Your task to perform on an android device: Go to privacy settings Image 0: 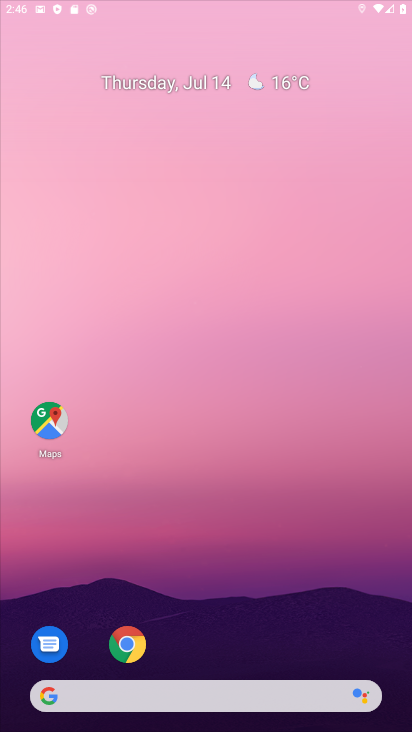
Step 0: click (217, 183)
Your task to perform on an android device: Go to privacy settings Image 1: 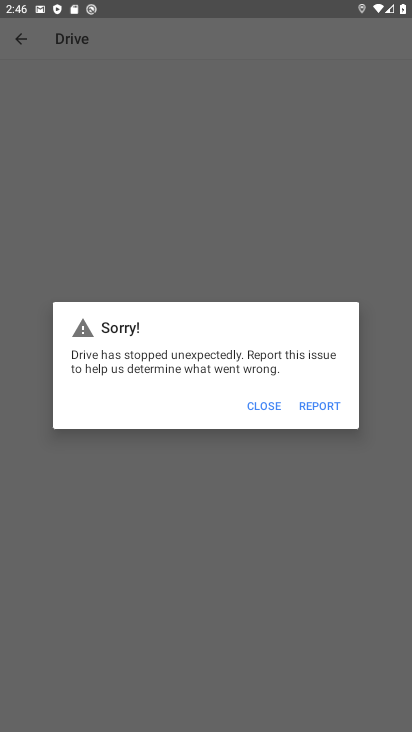
Step 1: press home button
Your task to perform on an android device: Go to privacy settings Image 2: 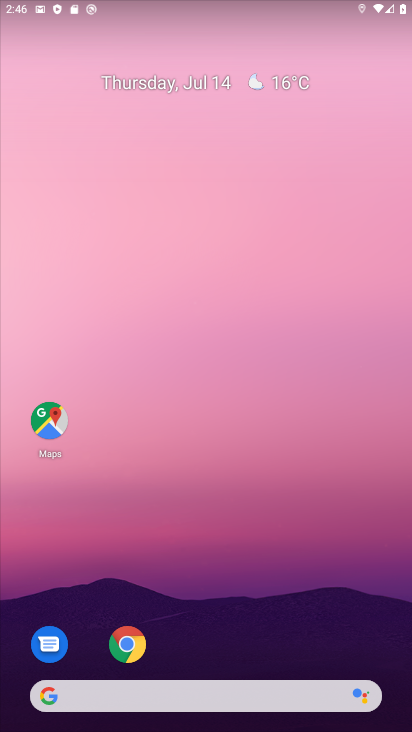
Step 2: drag from (189, 635) to (178, 162)
Your task to perform on an android device: Go to privacy settings Image 3: 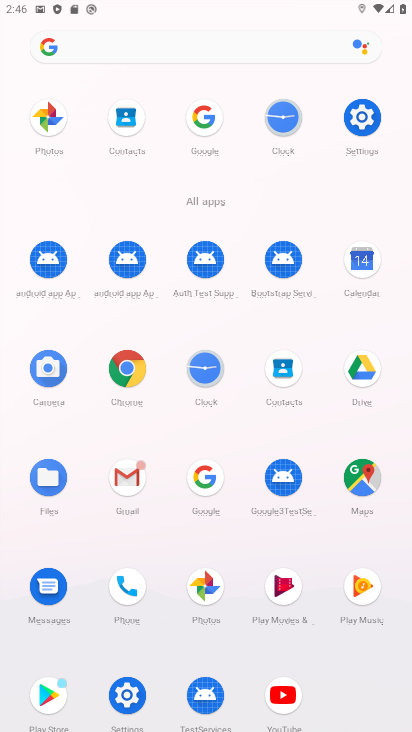
Step 3: click (345, 115)
Your task to perform on an android device: Go to privacy settings Image 4: 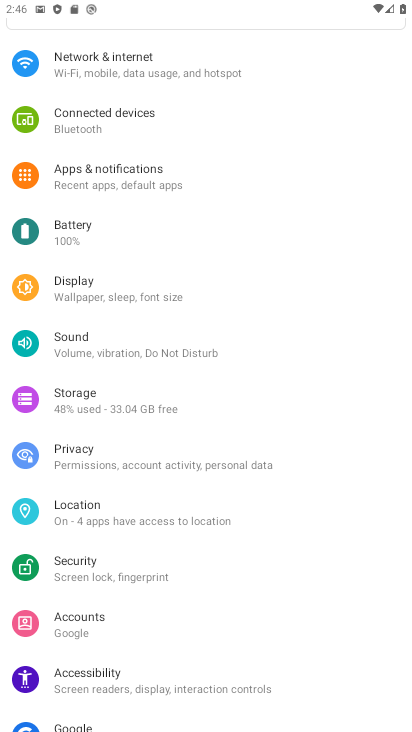
Step 4: click (115, 467)
Your task to perform on an android device: Go to privacy settings Image 5: 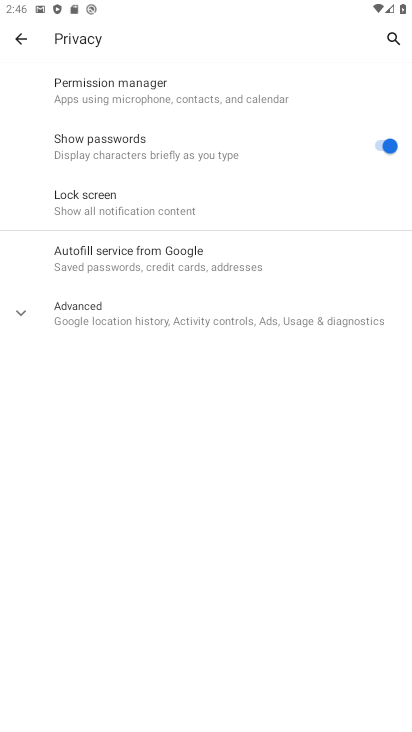
Step 5: task complete